Your task to perform on an android device: set an alarm Image 0: 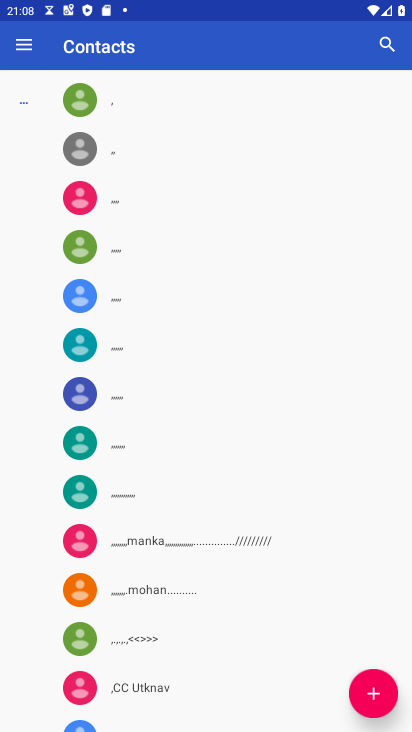
Step 0: press home button
Your task to perform on an android device: set an alarm Image 1: 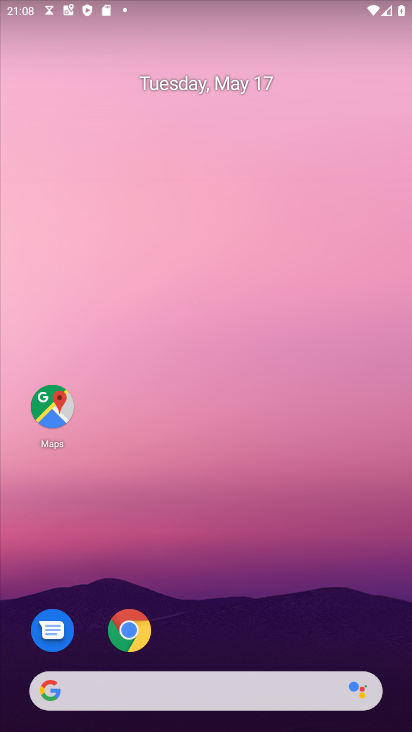
Step 1: drag from (200, 632) to (131, 185)
Your task to perform on an android device: set an alarm Image 2: 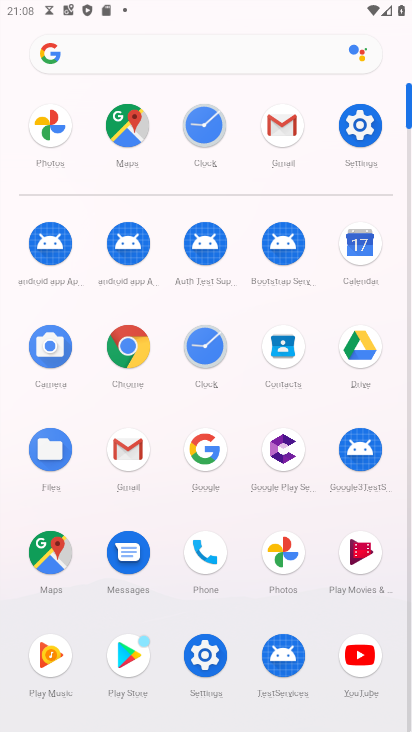
Step 2: click (205, 338)
Your task to perform on an android device: set an alarm Image 3: 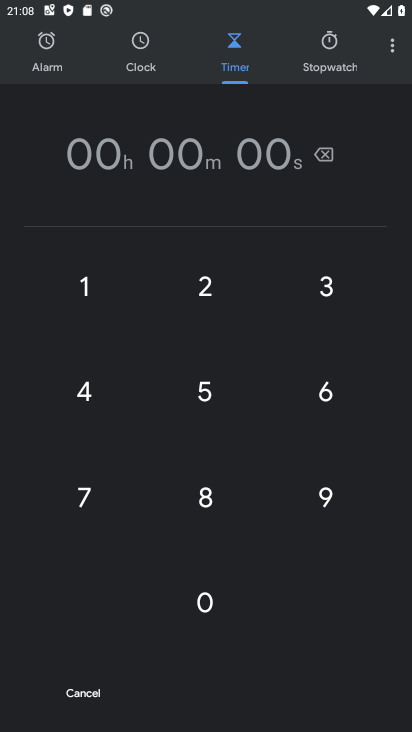
Step 3: click (53, 54)
Your task to perform on an android device: set an alarm Image 4: 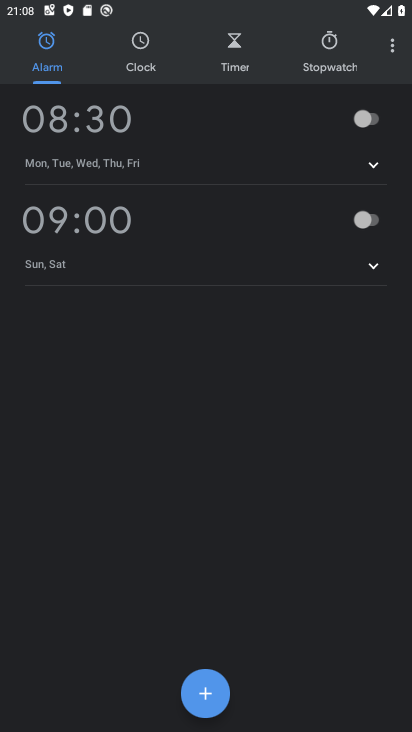
Step 4: click (202, 700)
Your task to perform on an android device: set an alarm Image 5: 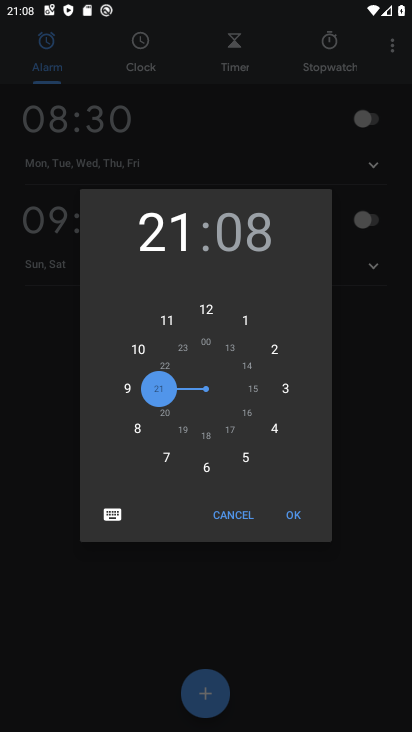
Step 5: click (297, 515)
Your task to perform on an android device: set an alarm Image 6: 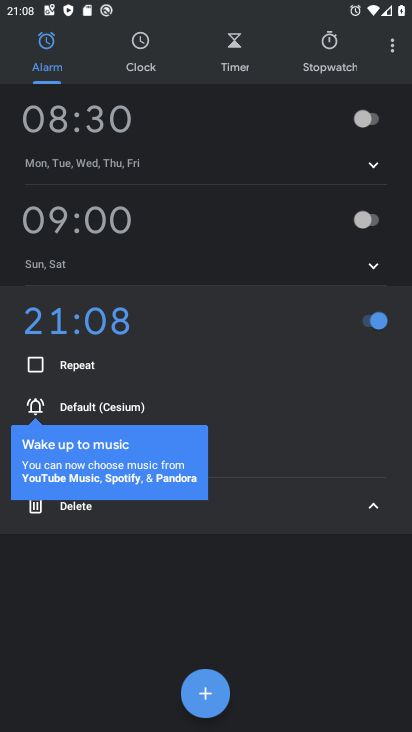
Step 6: click (380, 510)
Your task to perform on an android device: set an alarm Image 7: 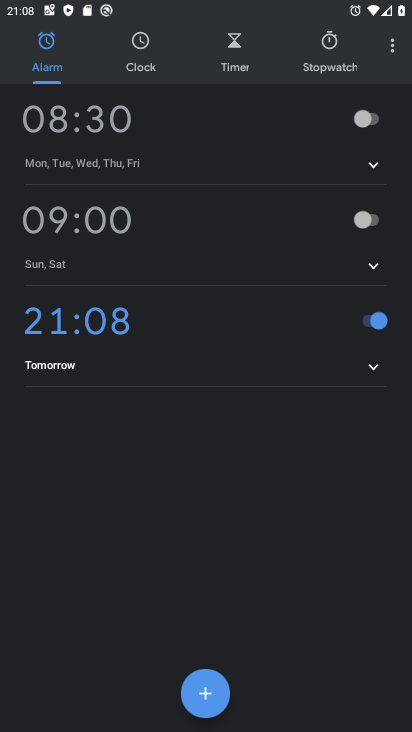
Step 7: click (371, 218)
Your task to perform on an android device: set an alarm Image 8: 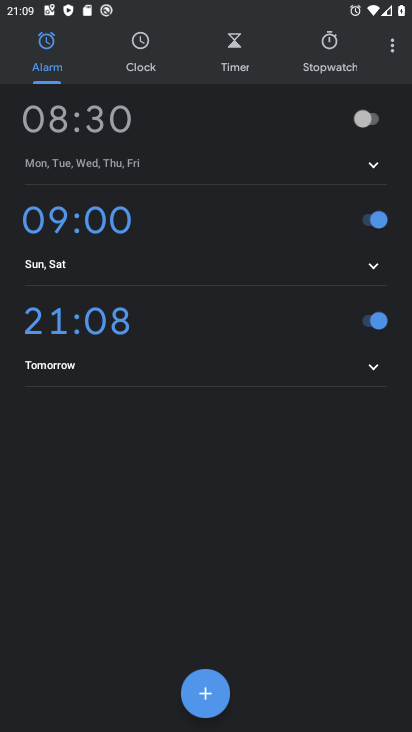
Step 8: task complete